Your task to perform on an android device: What's on Reddit today Image 0: 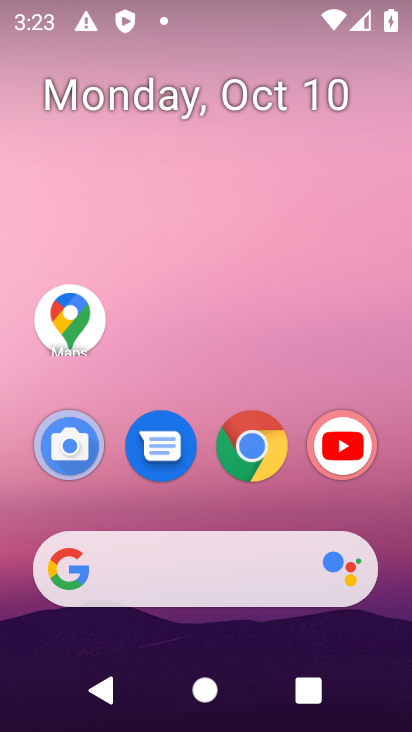
Step 0: click (187, 547)
Your task to perform on an android device: What's on Reddit today Image 1: 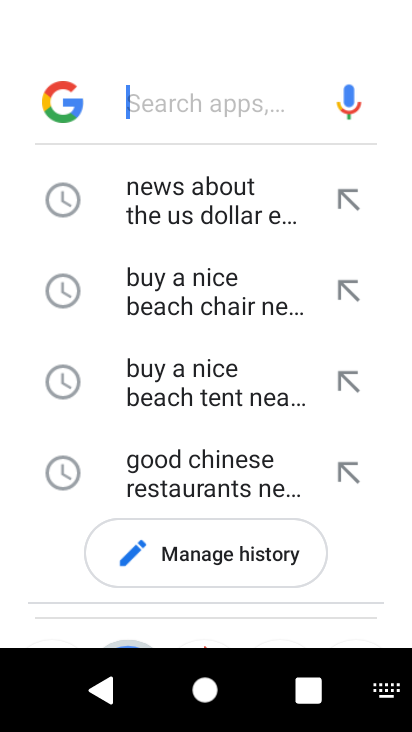
Step 1: type "Reddit today"
Your task to perform on an android device: What's on Reddit today Image 2: 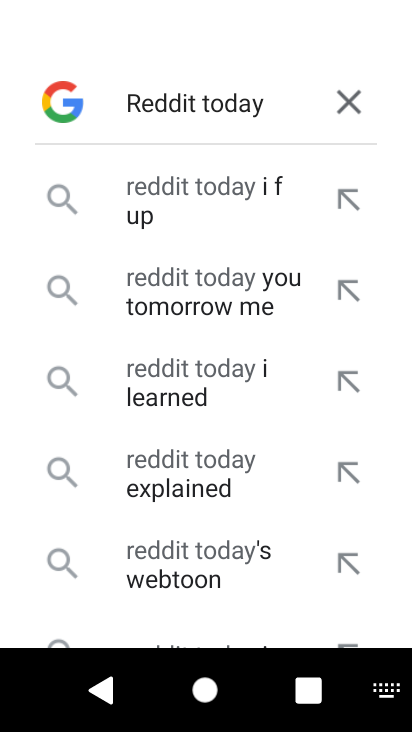
Step 2: drag from (240, 537) to (246, 383)
Your task to perform on an android device: What's on Reddit today Image 3: 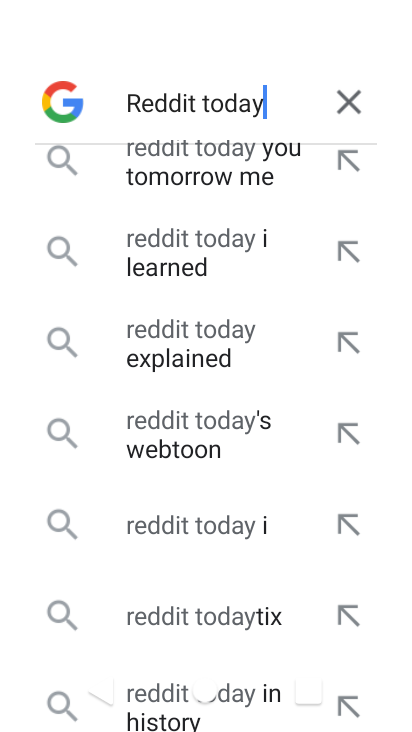
Step 3: drag from (250, 259) to (253, 374)
Your task to perform on an android device: What's on Reddit today Image 4: 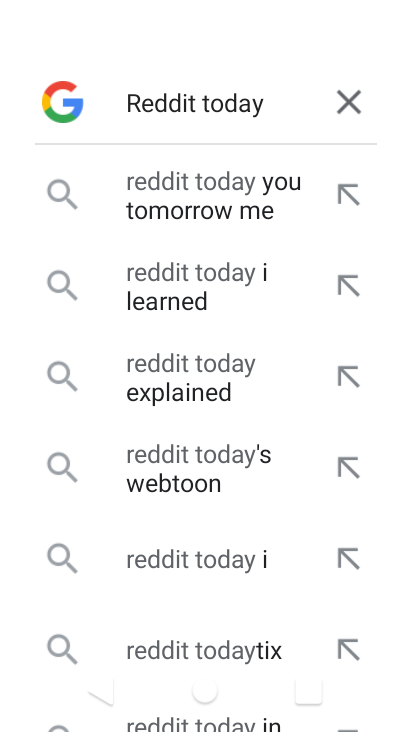
Step 4: drag from (245, 339) to (237, 550)
Your task to perform on an android device: What's on Reddit today Image 5: 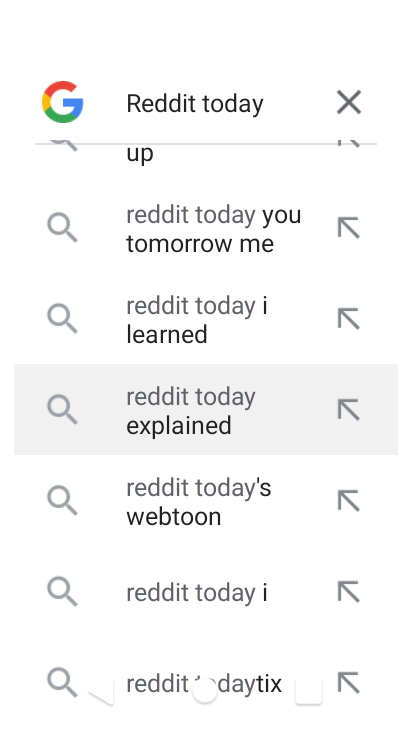
Step 5: drag from (174, 244) to (175, 441)
Your task to perform on an android device: What's on Reddit today Image 6: 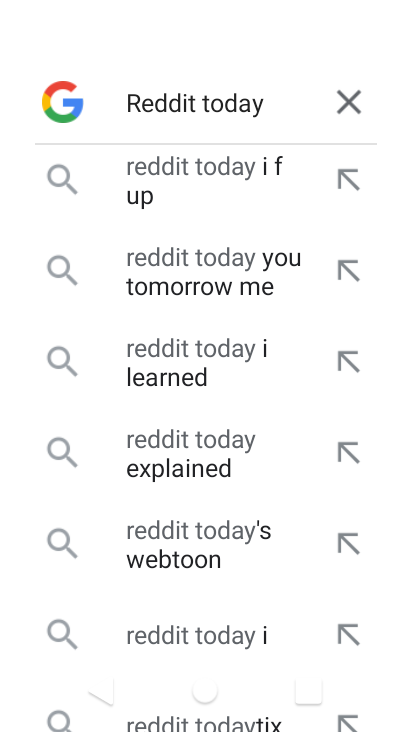
Step 6: drag from (152, 229) to (171, 477)
Your task to perform on an android device: What's on Reddit today Image 7: 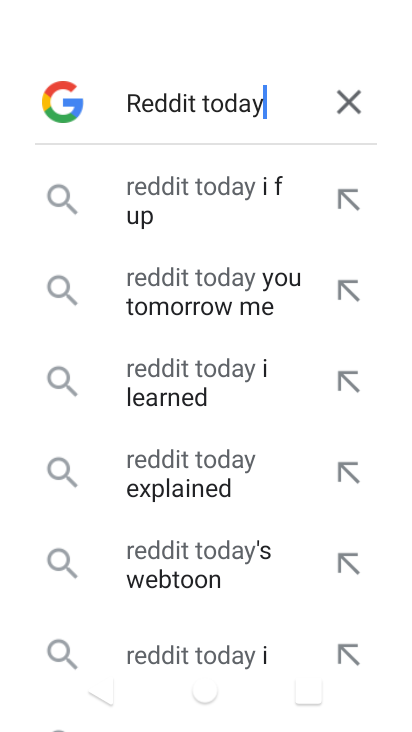
Step 7: click (344, 92)
Your task to perform on an android device: What's on Reddit today Image 8: 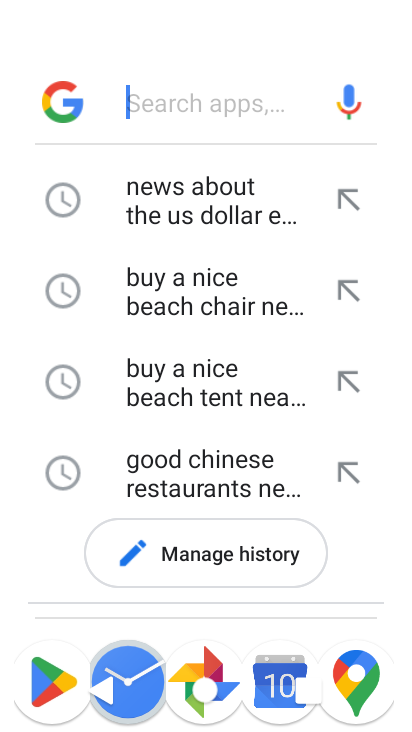
Step 8: type "Reddit"
Your task to perform on an android device: What's on Reddit today Image 9: 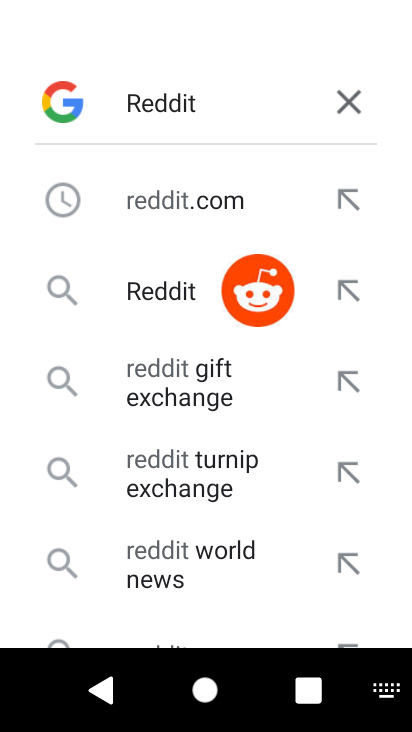
Step 9: type ""
Your task to perform on an android device: What's on Reddit today Image 10: 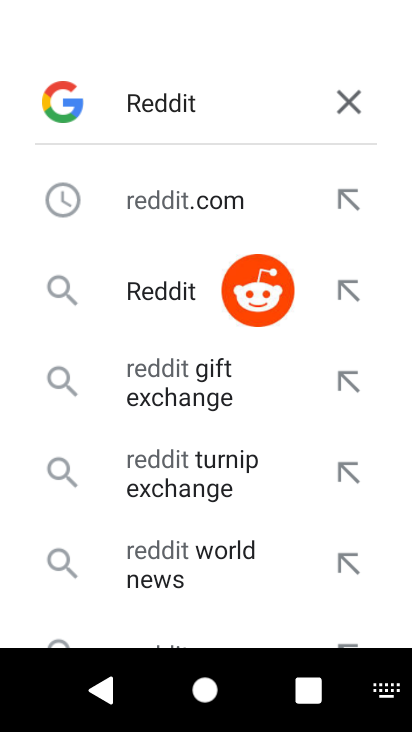
Step 10: click (186, 201)
Your task to perform on an android device: What's on Reddit today Image 11: 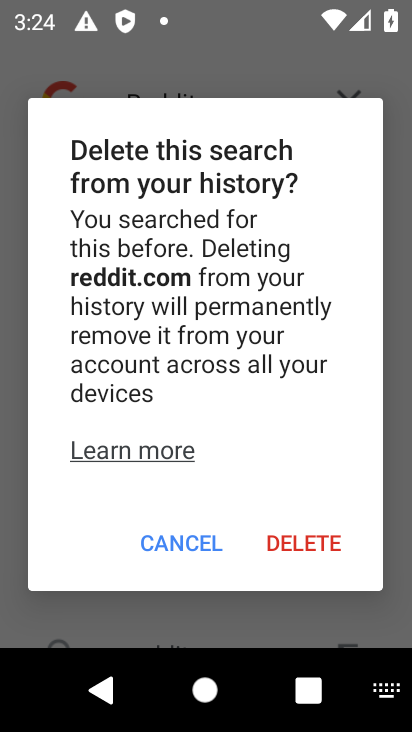
Step 11: click (203, 534)
Your task to perform on an android device: What's on Reddit today Image 12: 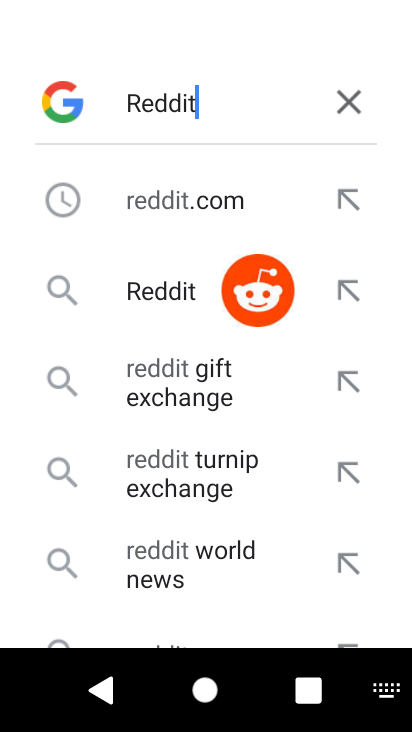
Step 12: click (190, 216)
Your task to perform on an android device: What's on Reddit today Image 13: 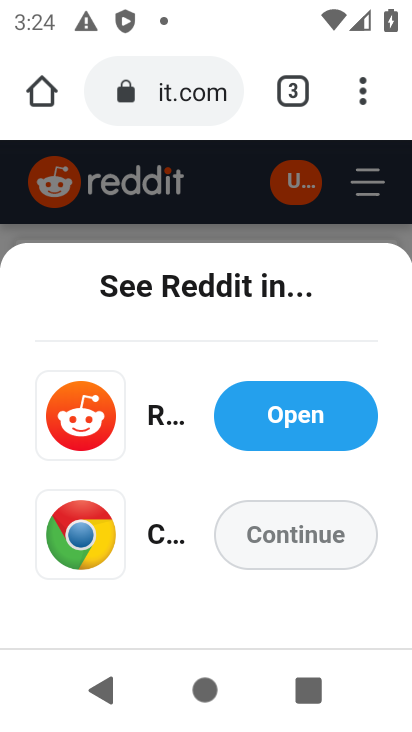
Step 13: click (240, 533)
Your task to perform on an android device: What's on Reddit today Image 14: 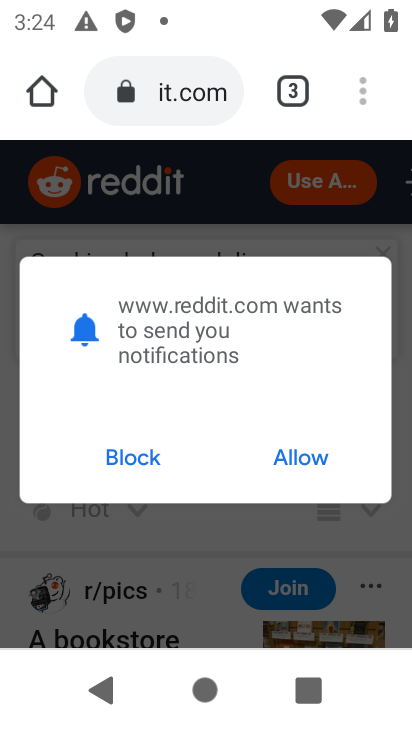
Step 14: click (164, 468)
Your task to perform on an android device: What's on Reddit today Image 15: 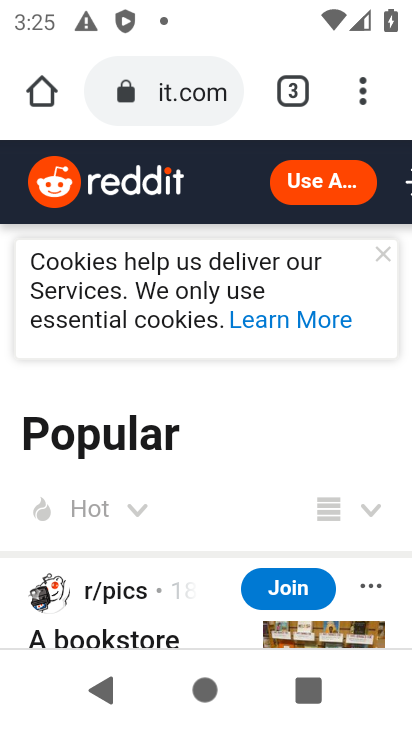
Step 15: task complete